Your task to perform on an android device: Show me popular videos on Youtube Image 0: 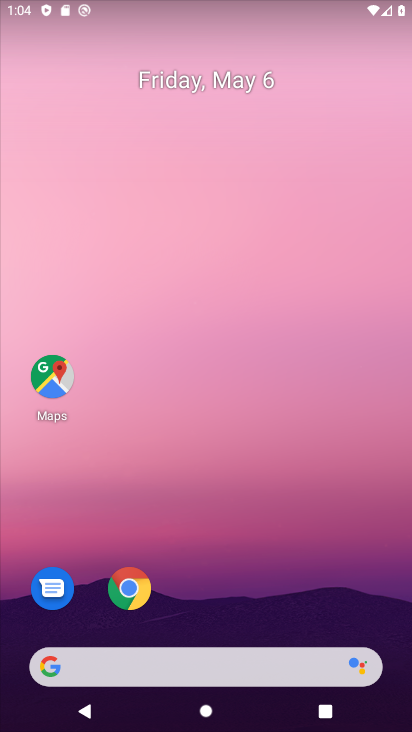
Step 0: drag from (377, 596) to (357, 140)
Your task to perform on an android device: Show me popular videos on Youtube Image 1: 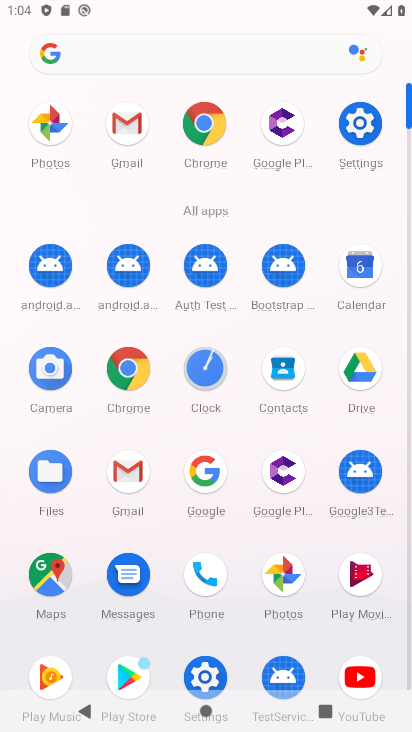
Step 1: click (352, 670)
Your task to perform on an android device: Show me popular videos on Youtube Image 2: 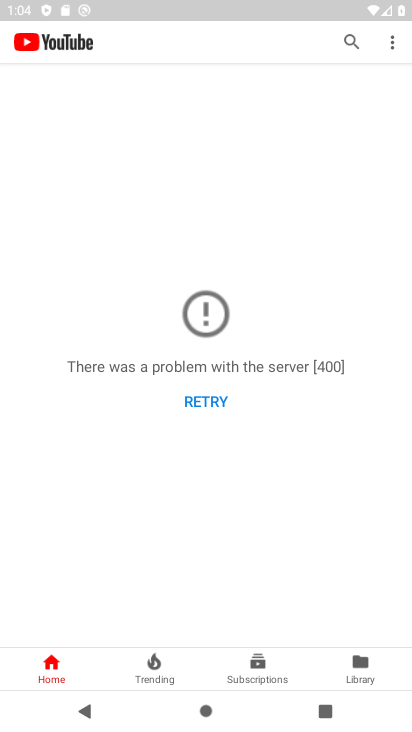
Step 2: click (142, 671)
Your task to perform on an android device: Show me popular videos on Youtube Image 3: 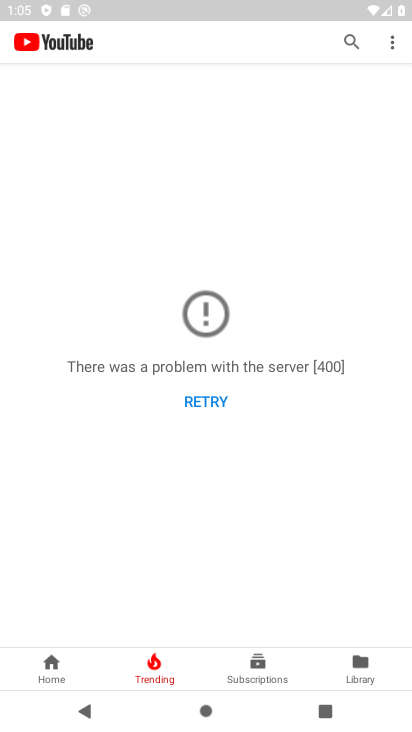
Step 3: task complete